Your task to perform on an android device: Go to ESPN.com Image 0: 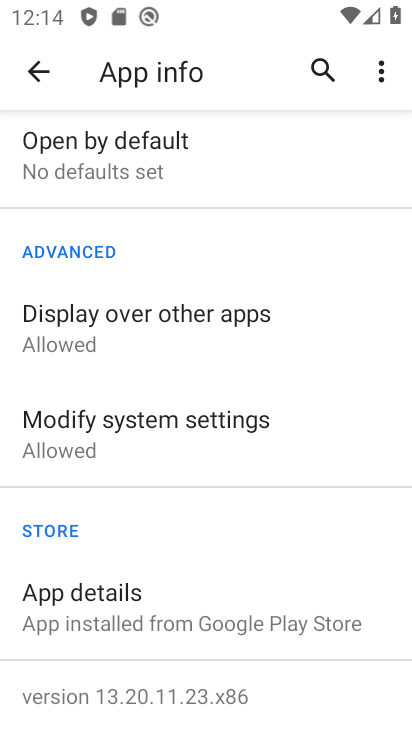
Step 0: press home button
Your task to perform on an android device: Go to ESPN.com Image 1: 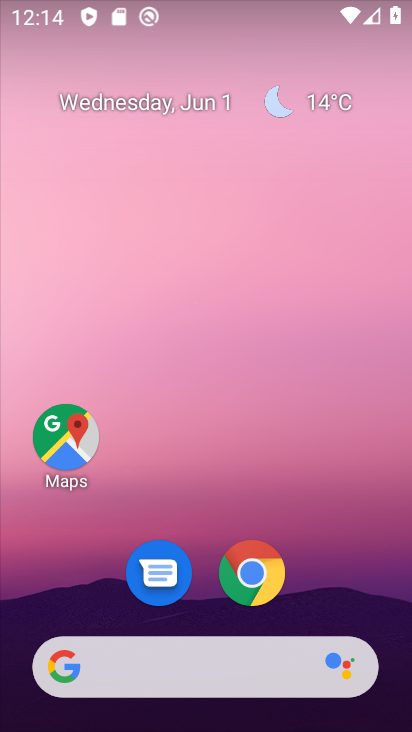
Step 1: click (246, 569)
Your task to perform on an android device: Go to ESPN.com Image 2: 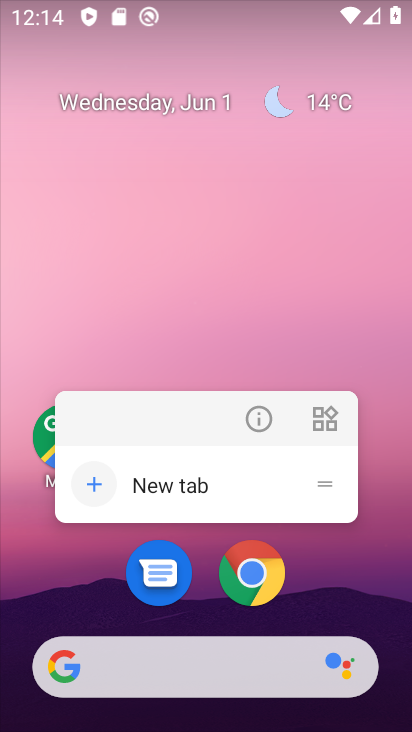
Step 2: click (252, 582)
Your task to perform on an android device: Go to ESPN.com Image 3: 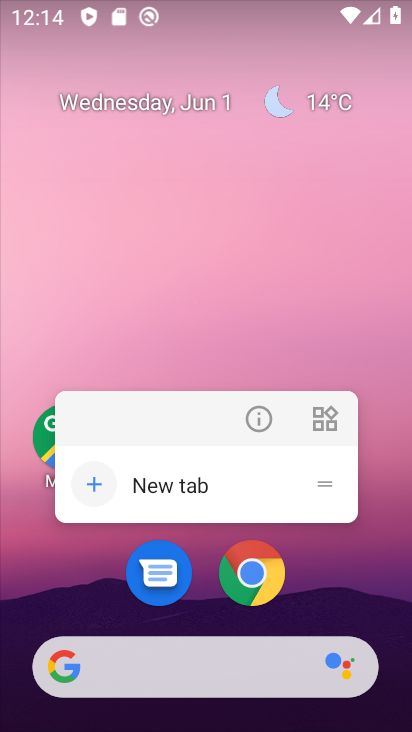
Step 3: click (264, 590)
Your task to perform on an android device: Go to ESPN.com Image 4: 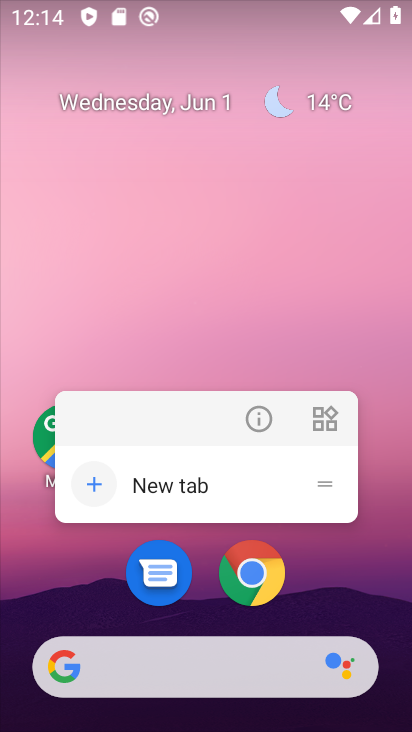
Step 4: click (264, 590)
Your task to perform on an android device: Go to ESPN.com Image 5: 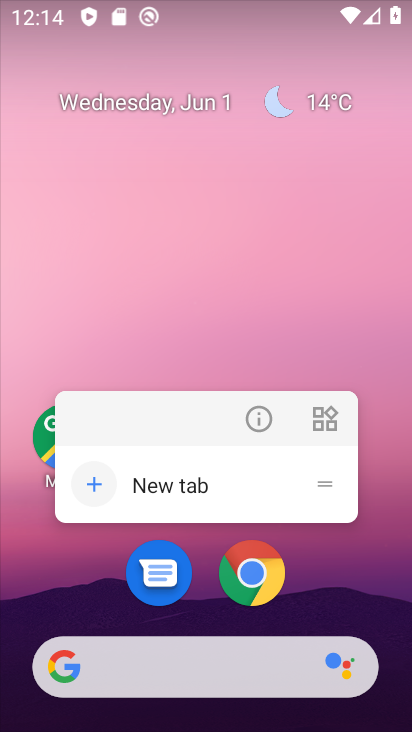
Step 5: click (267, 589)
Your task to perform on an android device: Go to ESPN.com Image 6: 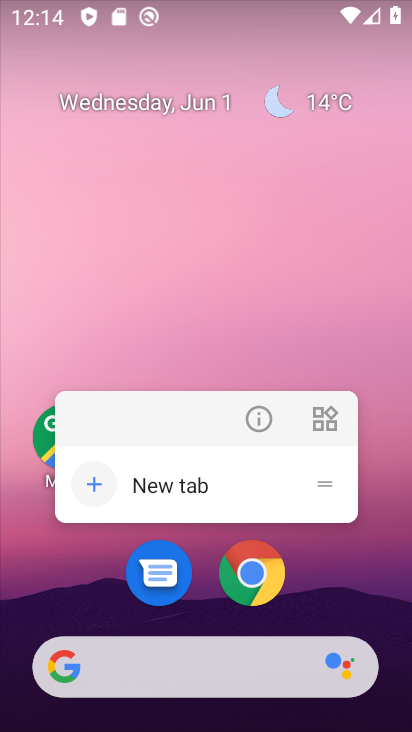
Step 6: click (267, 589)
Your task to perform on an android device: Go to ESPN.com Image 7: 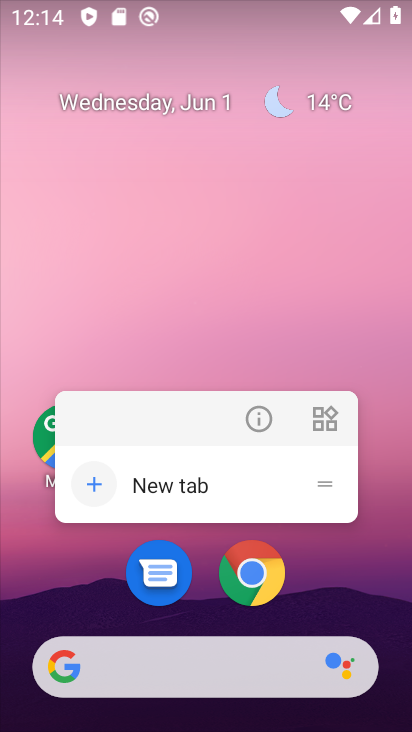
Step 7: click (258, 567)
Your task to perform on an android device: Go to ESPN.com Image 8: 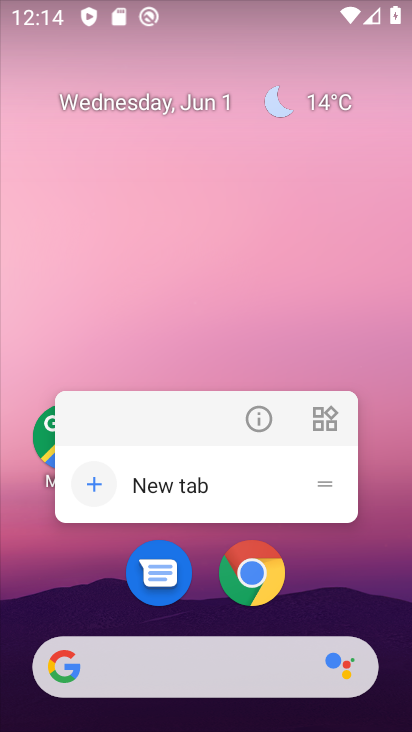
Step 8: click (249, 590)
Your task to perform on an android device: Go to ESPN.com Image 9: 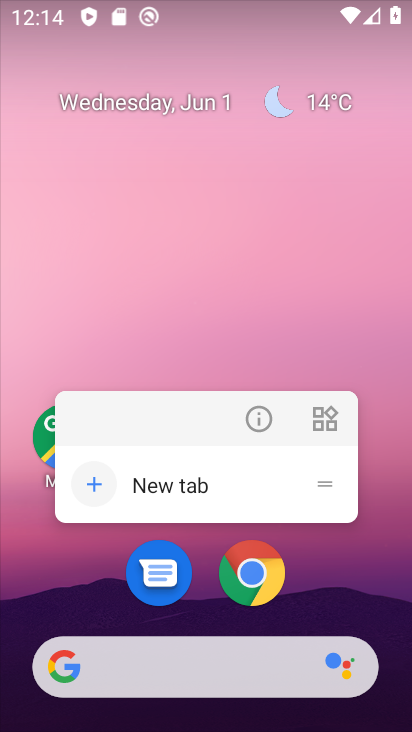
Step 9: click (257, 576)
Your task to perform on an android device: Go to ESPN.com Image 10: 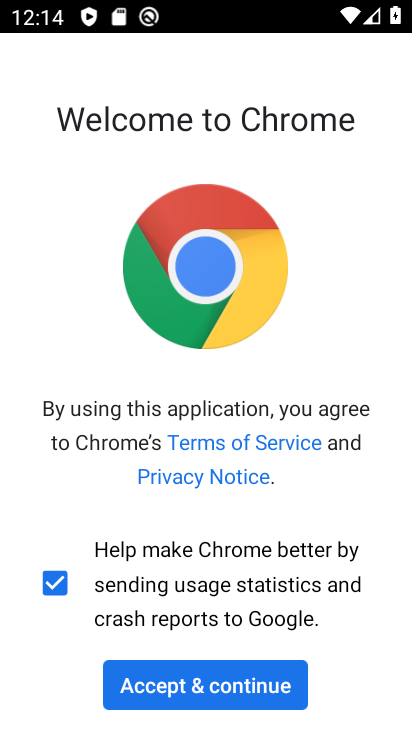
Step 10: click (284, 686)
Your task to perform on an android device: Go to ESPN.com Image 11: 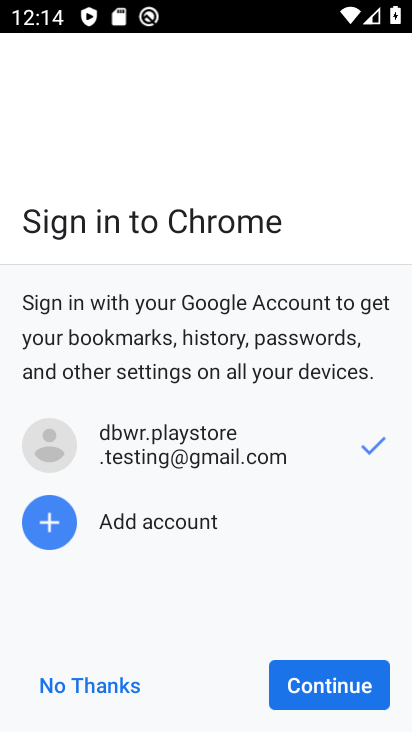
Step 11: click (333, 680)
Your task to perform on an android device: Go to ESPN.com Image 12: 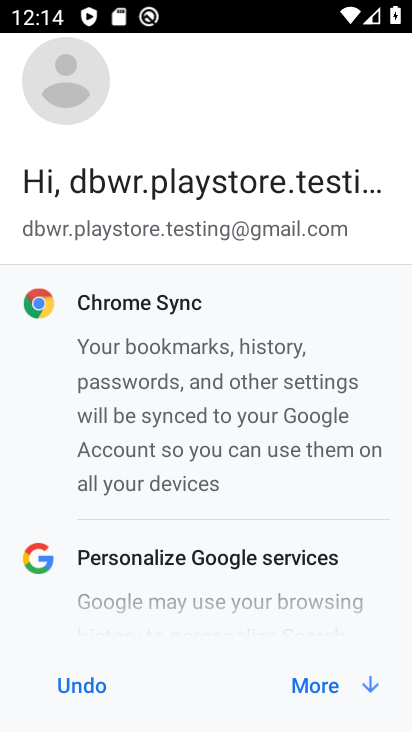
Step 12: click (336, 679)
Your task to perform on an android device: Go to ESPN.com Image 13: 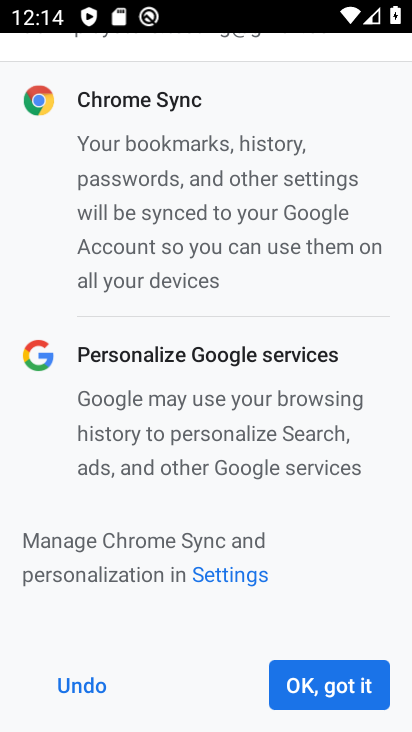
Step 13: click (335, 679)
Your task to perform on an android device: Go to ESPN.com Image 14: 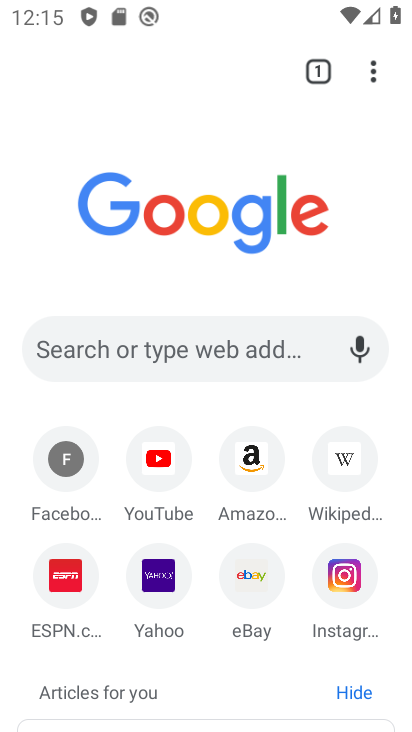
Step 14: click (67, 594)
Your task to perform on an android device: Go to ESPN.com Image 15: 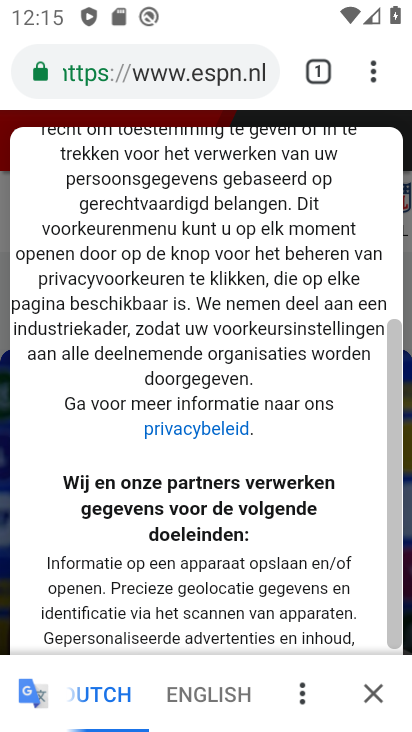
Step 15: task complete